Your task to perform on an android device: Go to Wikipedia Image 0: 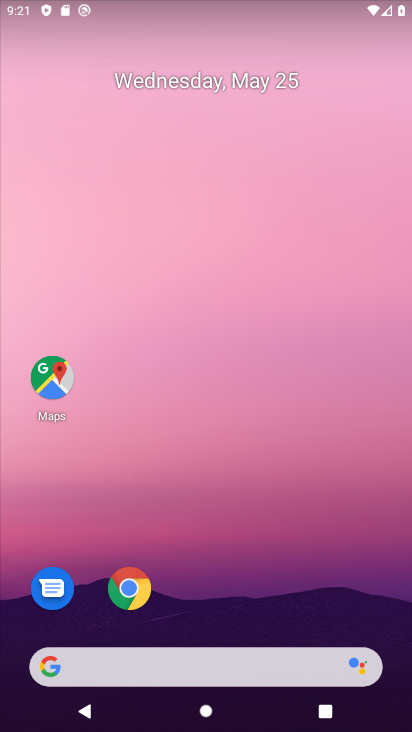
Step 0: click (116, 582)
Your task to perform on an android device: Go to Wikipedia Image 1: 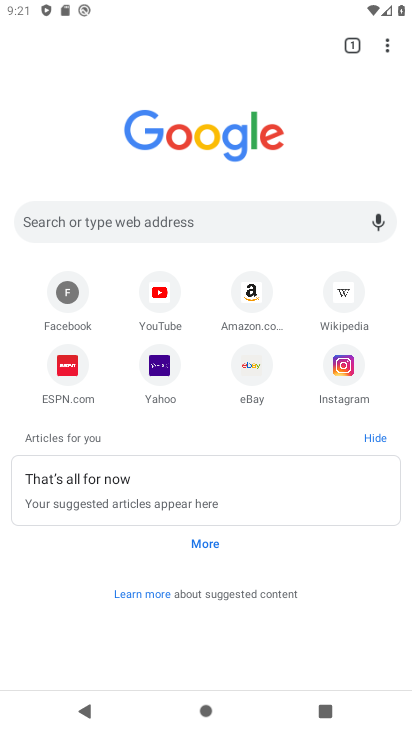
Step 1: click (346, 293)
Your task to perform on an android device: Go to Wikipedia Image 2: 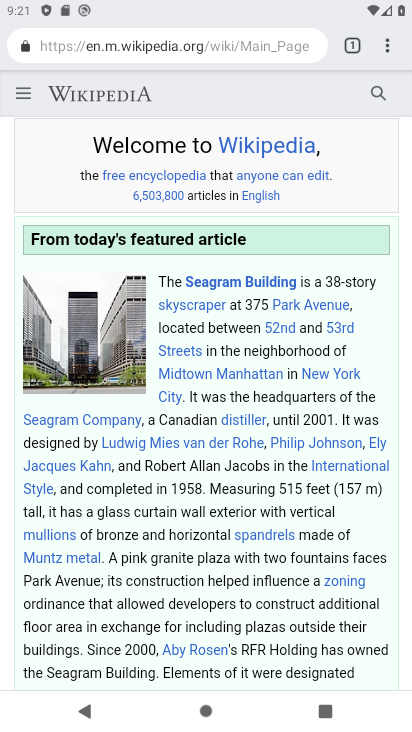
Step 2: task complete